Your task to perform on an android device: Go to Android settings Image 0: 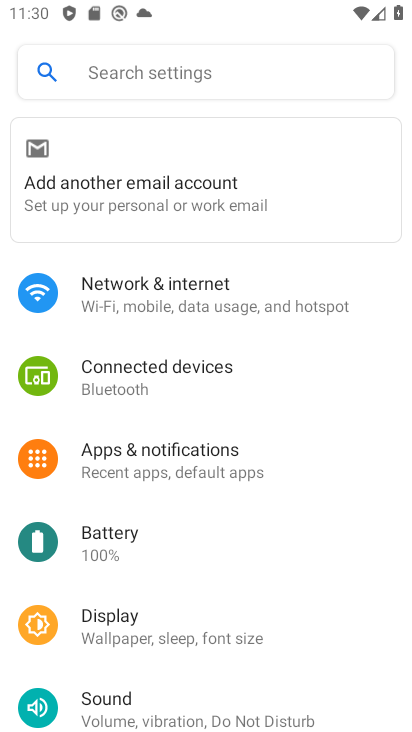
Step 0: task complete